Your task to perform on an android device: open sync settings in chrome Image 0: 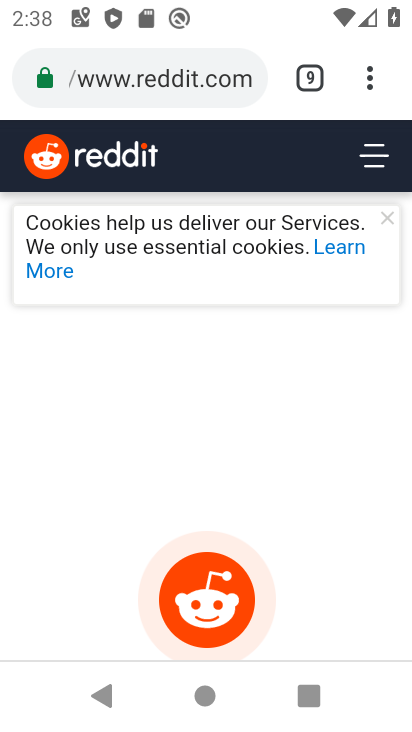
Step 0: press home button
Your task to perform on an android device: open sync settings in chrome Image 1: 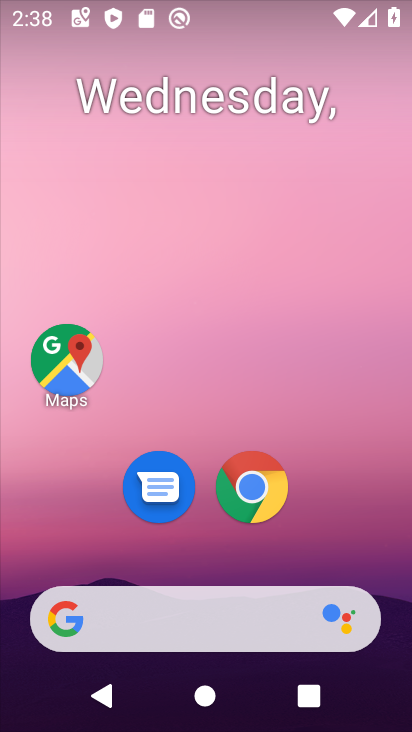
Step 1: click (251, 488)
Your task to perform on an android device: open sync settings in chrome Image 2: 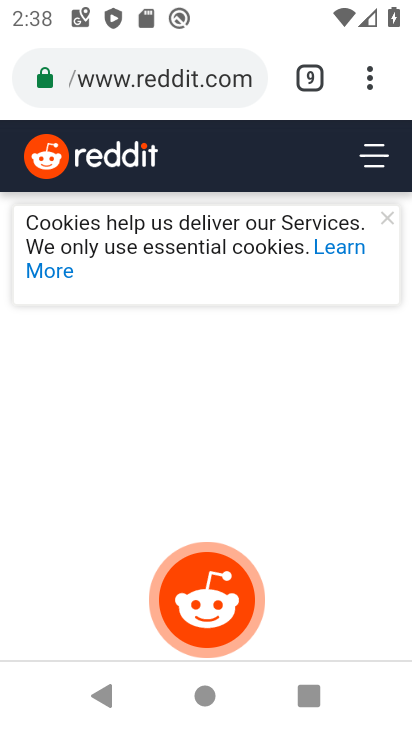
Step 2: click (369, 80)
Your task to perform on an android device: open sync settings in chrome Image 3: 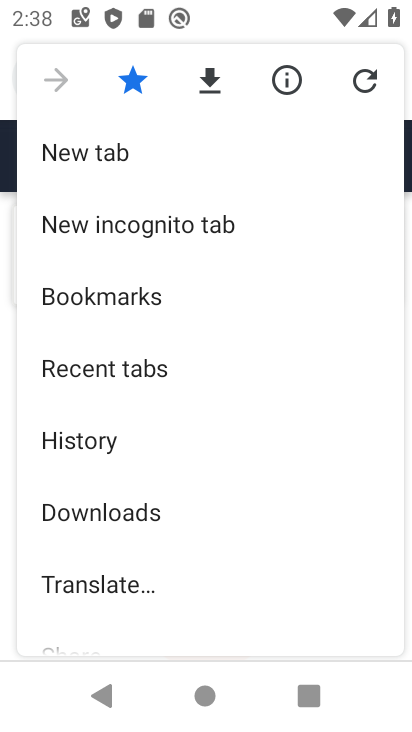
Step 3: drag from (230, 421) to (192, 79)
Your task to perform on an android device: open sync settings in chrome Image 4: 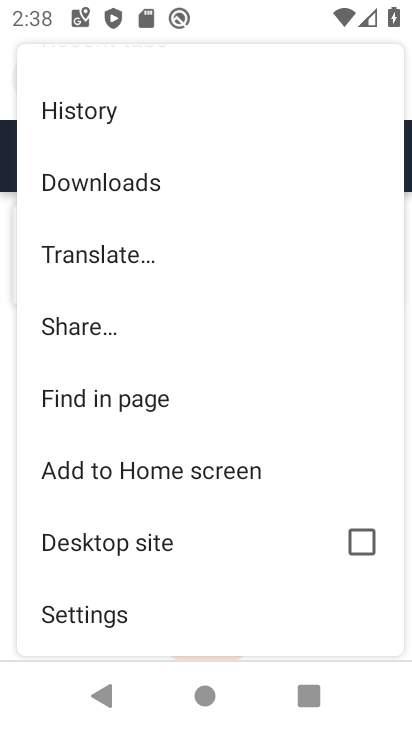
Step 4: drag from (185, 402) to (154, 171)
Your task to perform on an android device: open sync settings in chrome Image 5: 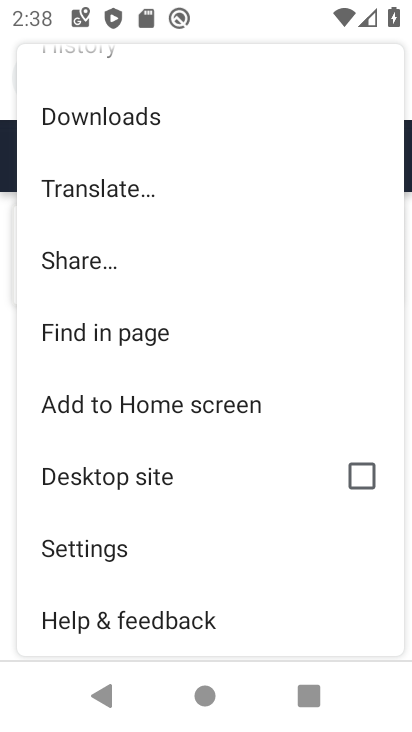
Step 5: click (115, 546)
Your task to perform on an android device: open sync settings in chrome Image 6: 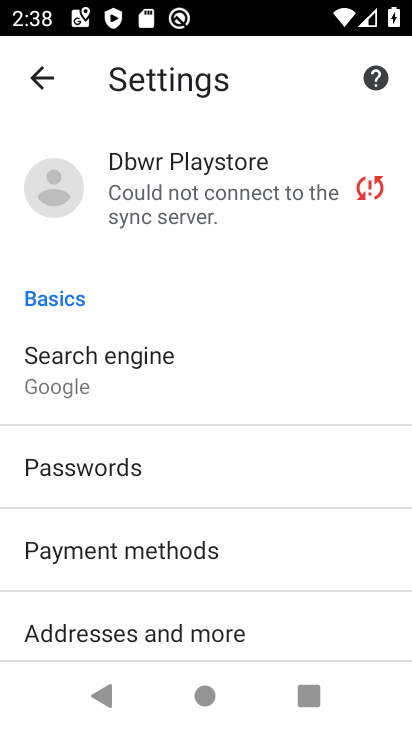
Step 6: click (208, 184)
Your task to perform on an android device: open sync settings in chrome Image 7: 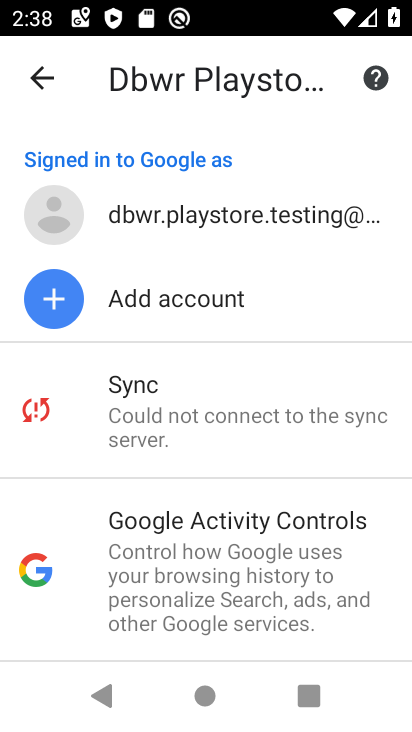
Step 7: click (150, 402)
Your task to perform on an android device: open sync settings in chrome Image 8: 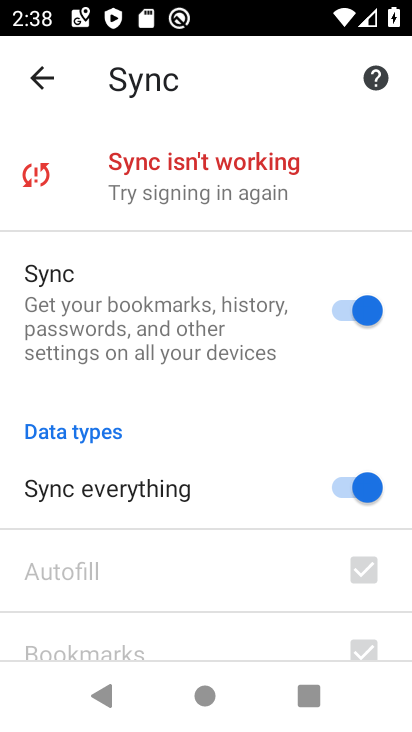
Step 8: task complete